Your task to perform on an android device: Show me the alarms in the clock app Image 0: 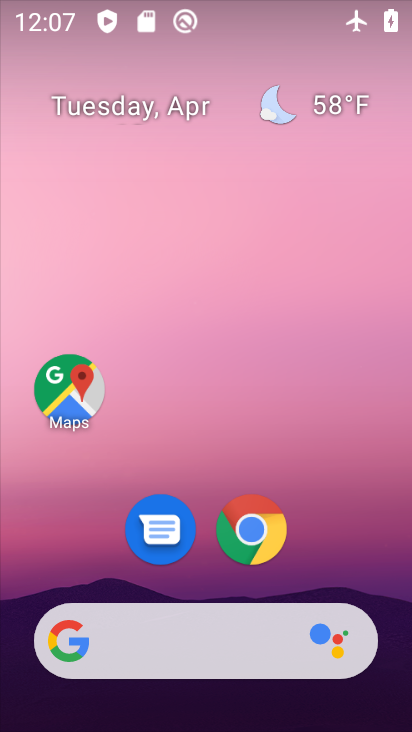
Step 0: drag from (395, 610) to (215, 41)
Your task to perform on an android device: Show me the alarms in the clock app Image 1: 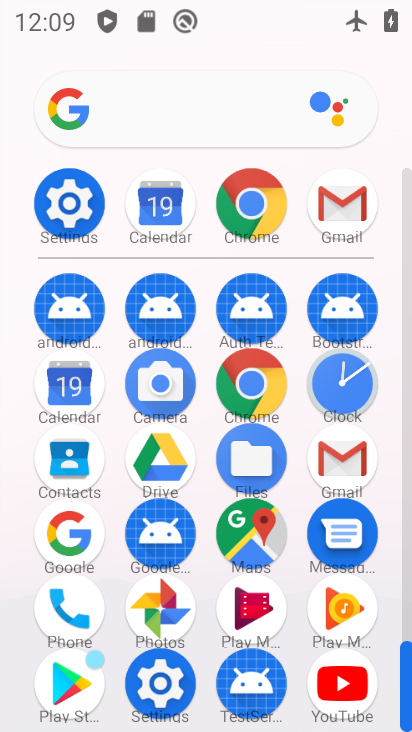
Step 1: click (345, 391)
Your task to perform on an android device: Show me the alarms in the clock app Image 2: 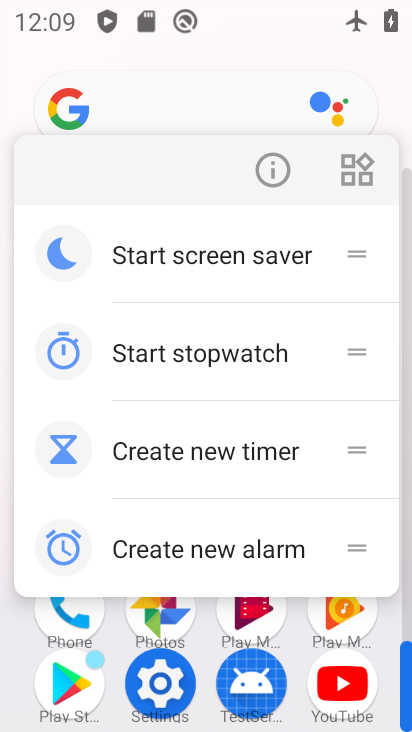
Step 2: press back button
Your task to perform on an android device: Show me the alarms in the clock app Image 3: 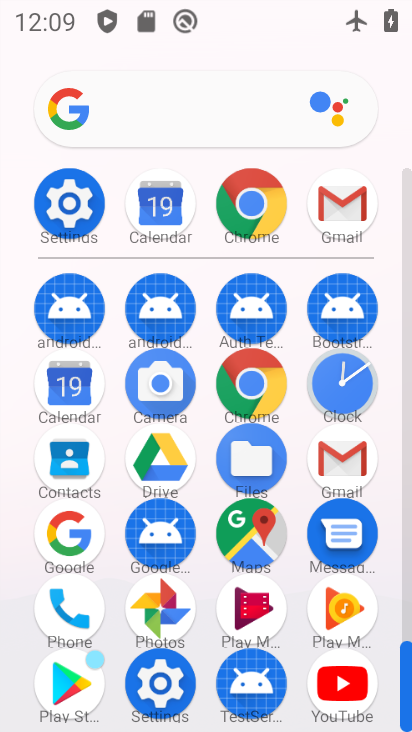
Step 3: click (334, 379)
Your task to perform on an android device: Show me the alarms in the clock app Image 4: 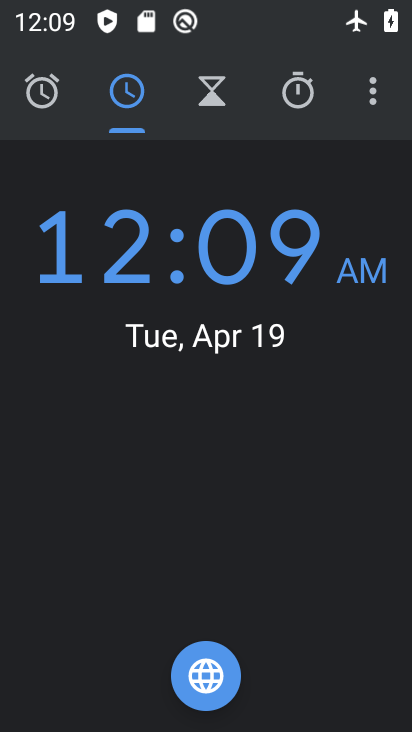
Step 4: click (35, 94)
Your task to perform on an android device: Show me the alarms in the clock app Image 5: 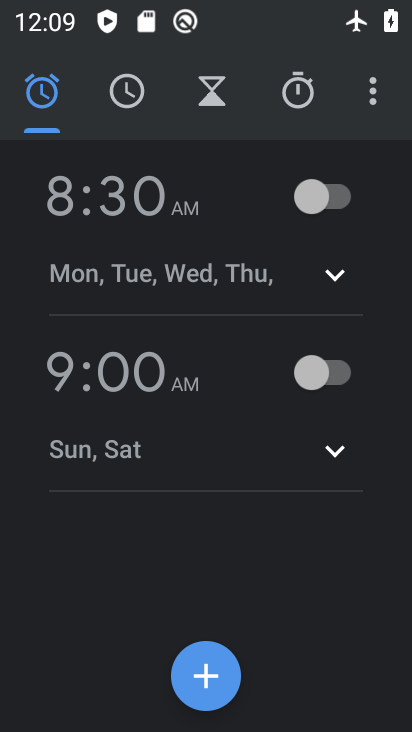
Step 5: click (35, 94)
Your task to perform on an android device: Show me the alarms in the clock app Image 6: 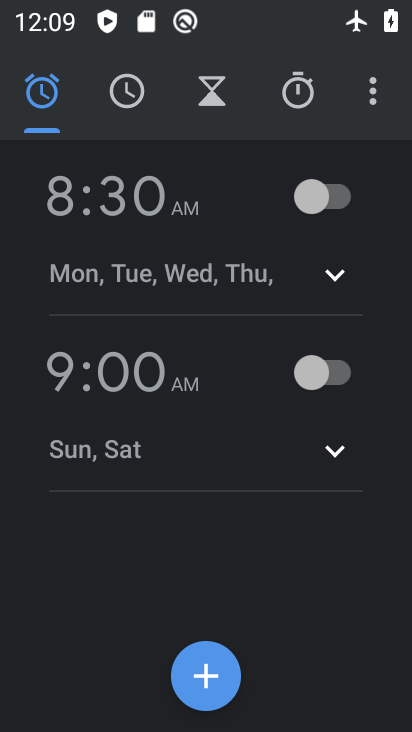
Step 6: task complete